Your task to perform on an android device: Open the phone app and click the voicemail tab. Image 0: 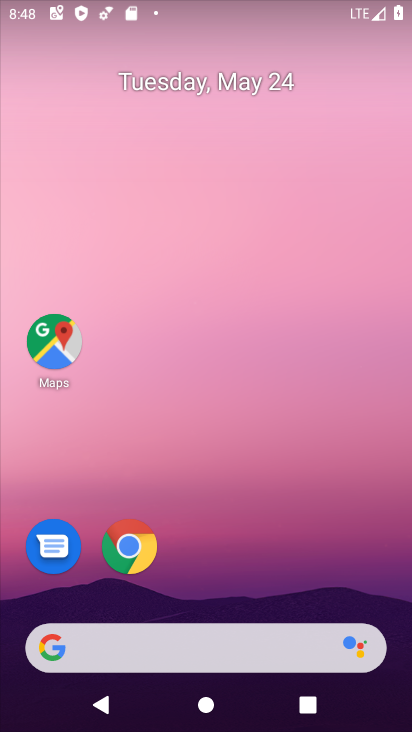
Step 0: drag from (228, 560) to (263, 15)
Your task to perform on an android device: Open the phone app and click the voicemail tab. Image 1: 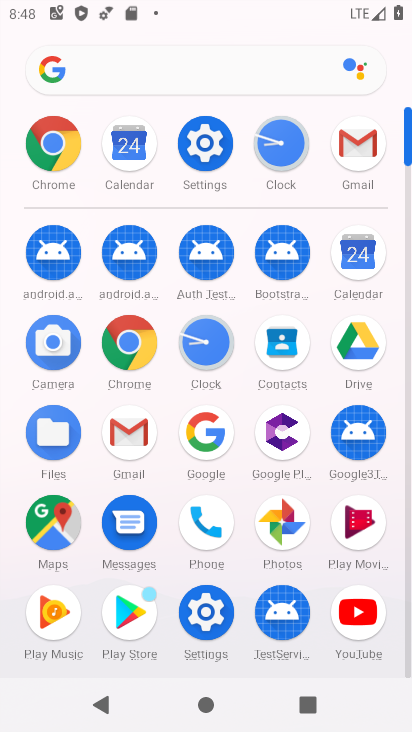
Step 1: click (205, 531)
Your task to perform on an android device: Open the phone app and click the voicemail tab. Image 2: 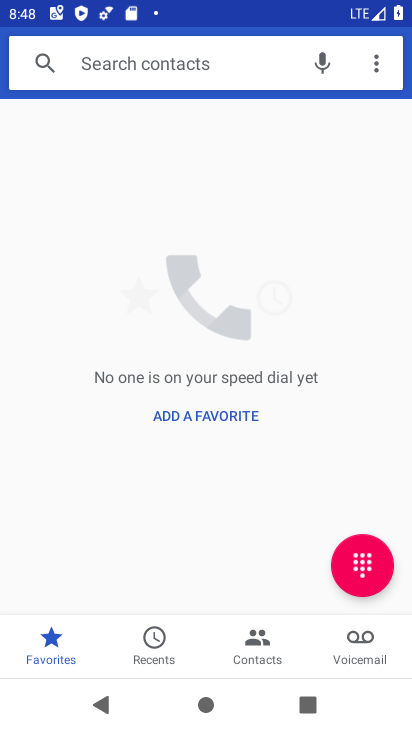
Step 2: click (352, 638)
Your task to perform on an android device: Open the phone app and click the voicemail tab. Image 3: 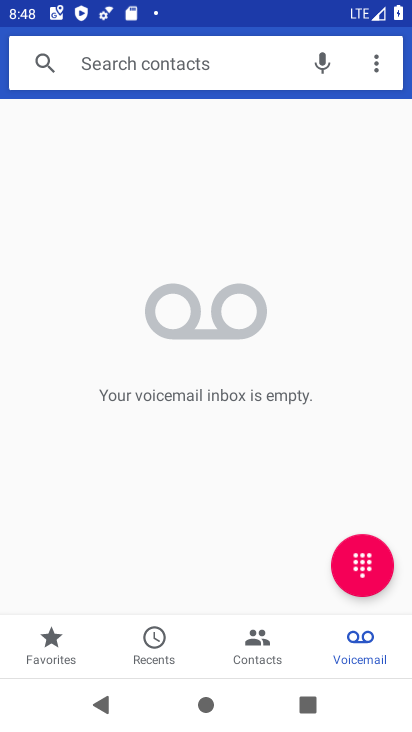
Step 3: task complete